Your task to perform on an android device: Open the calendar app, open the side menu, and click the "Day" option Image 0: 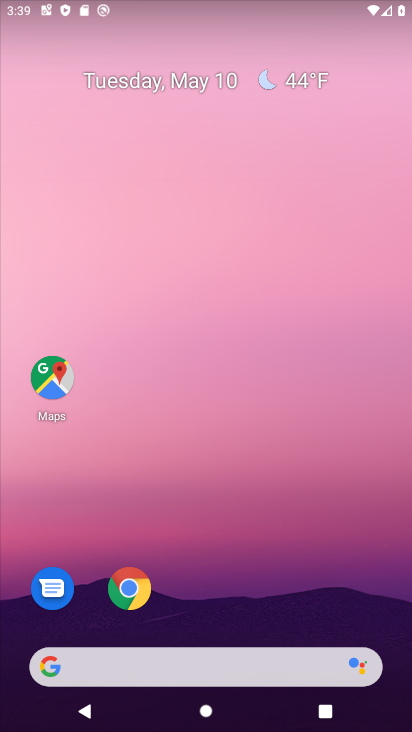
Step 0: drag from (247, 601) to (213, 86)
Your task to perform on an android device: Open the calendar app, open the side menu, and click the "Day" option Image 1: 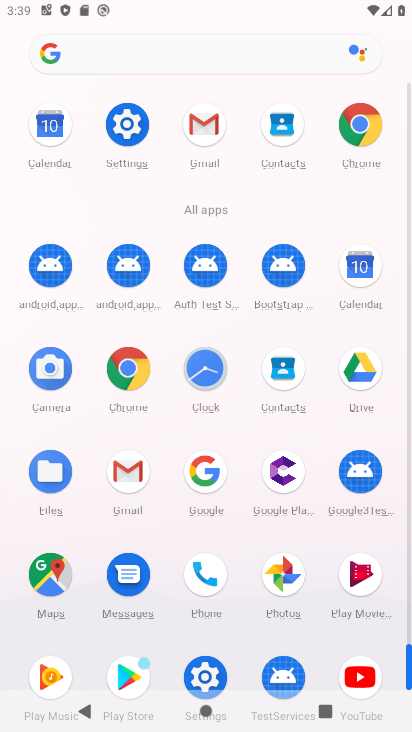
Step 1: click (350, 264)
Your task to perform on an android device: Open the calendar app, open the side menu, and click the "Day" option Image 2: 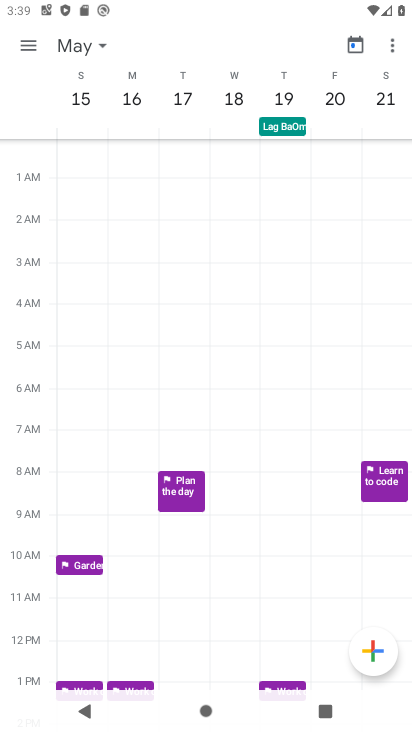
Step 2: click (34, 45)
Your task to perform on an android device: Open the calendar app, open the side menu, and click the "Day" option Image 3: 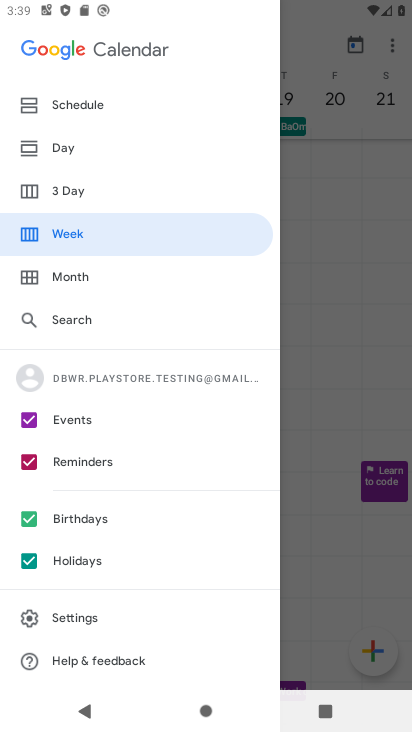
Step 3: click (80, 152)
Your task to perform on an android device: Open the calendar app, open the side menu, and click the "Day" option Image 4: 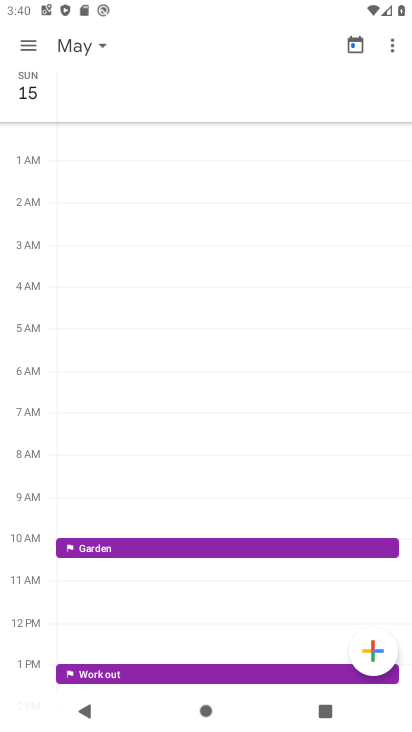
Step 4: task complete